Your task to perform on an android device: set an alarm Image 0: 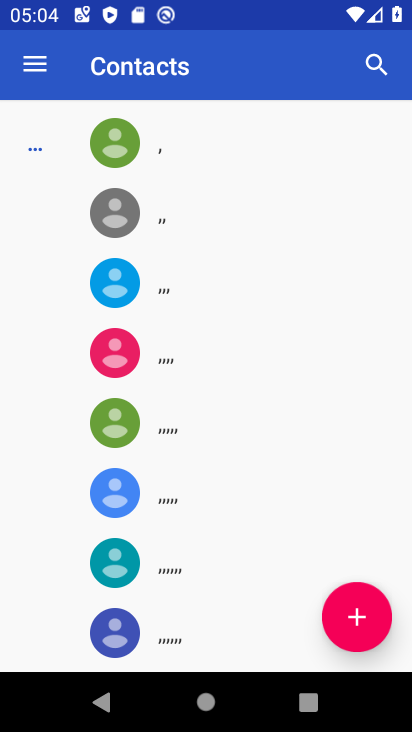
Step 0: press home button
Your task to perform on an android device: set an alarm Image 1: 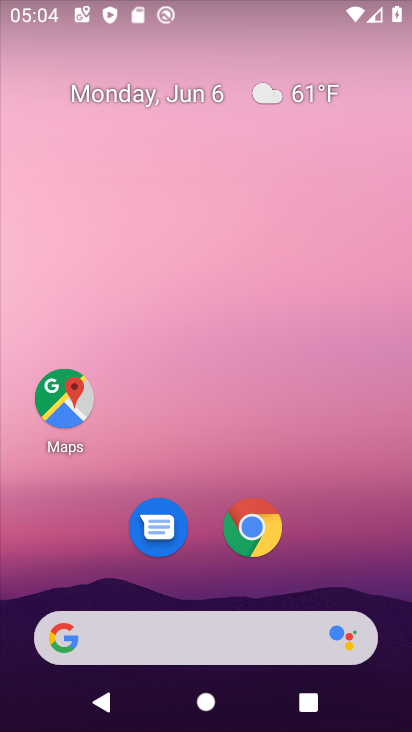
Step 1: click (392, 683)
Your task to perform on an android device: set an alarm Image 2: 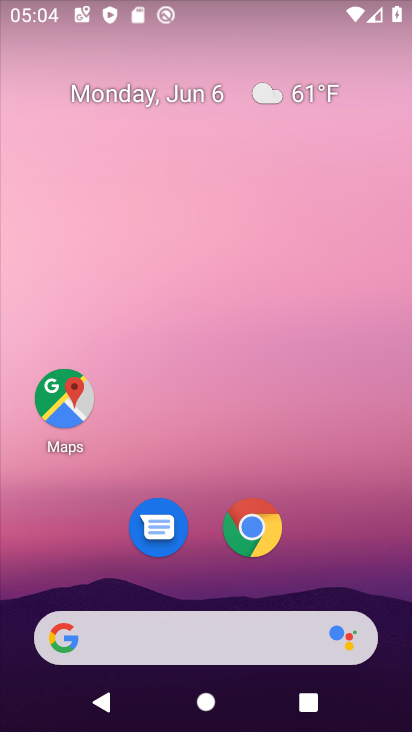
Step 2: drag from (385, 631) to (370, 128)
Your task to perform on an android device: set an alarm Image 3: 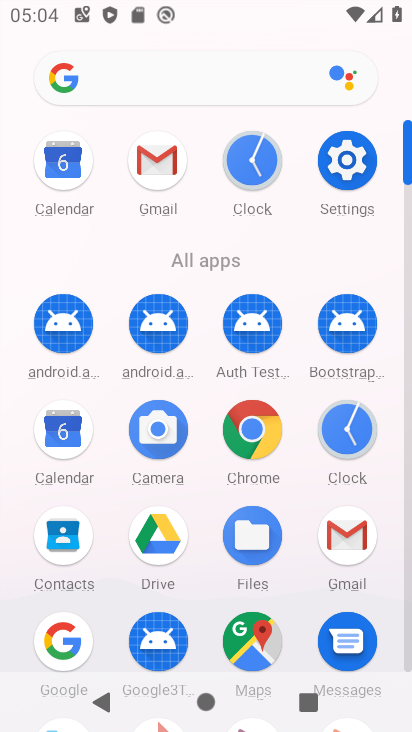
Step 3: click (339, 433)
Your task to perform on an android device: set an alarm Image 4: 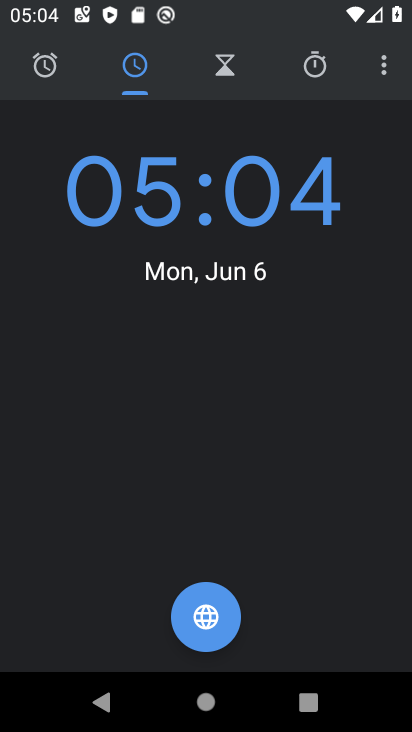
Step 4: click (42, 76)
Your task to perform on an android device: set an alarm Image 5: 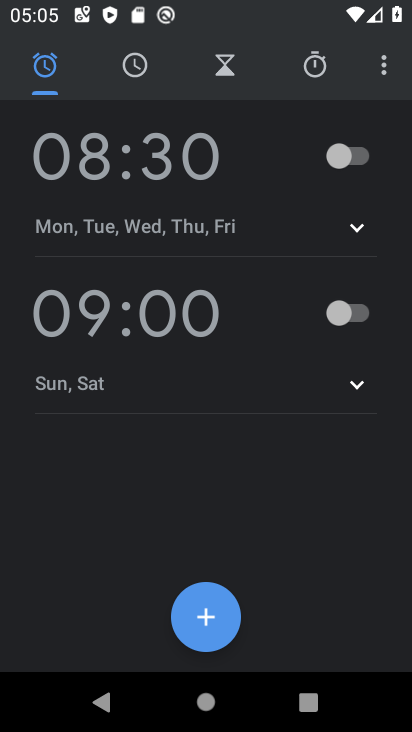
Step 5: click (351, 157)
Your task to perform on an android device: set an alarm Image 6: 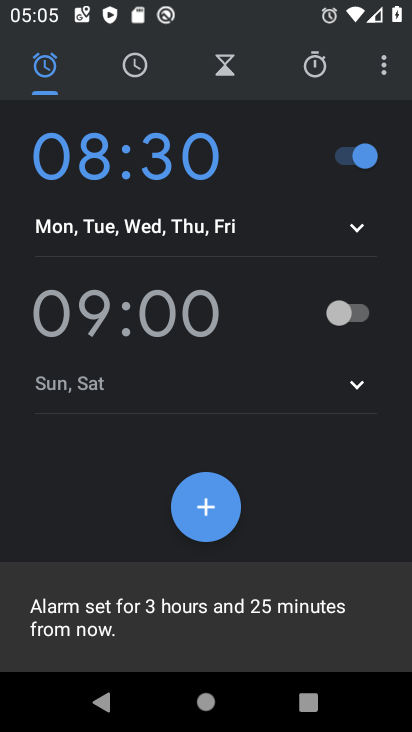
Step 6: task complete